Your task to perform on an android device: Show me popular games on the Play Store Image 0: 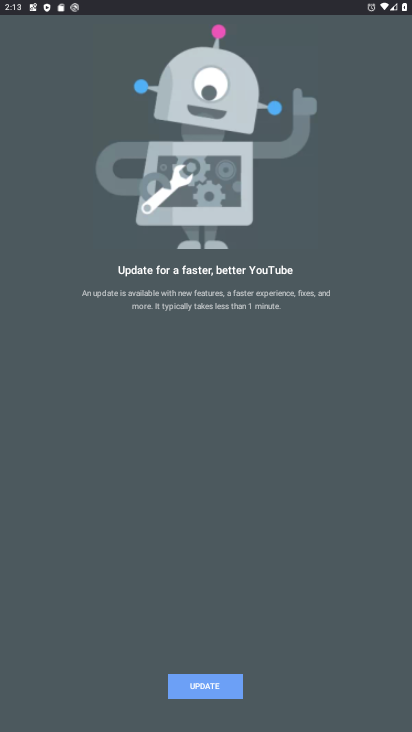
Step 0: click (186, 694)
Your task to perform on an android device: Show me popular games on the Play Store Image 1: 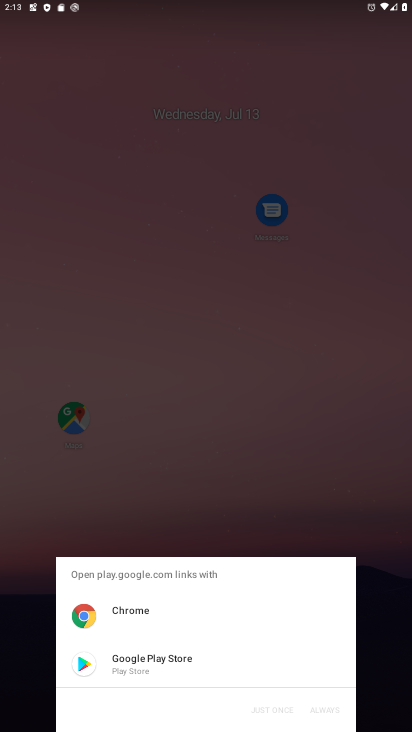
Step 1: press home button
Your task to perform on an android device: Show me popular games on the Play Store Image 2: 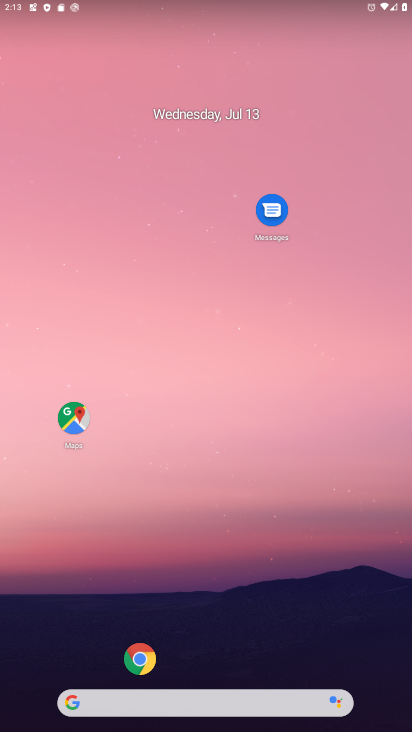
Step 2: drag from (132, 452) to (226, 217)
Your task to perform on an android device: Show me popular games on the Play Store Image 3: 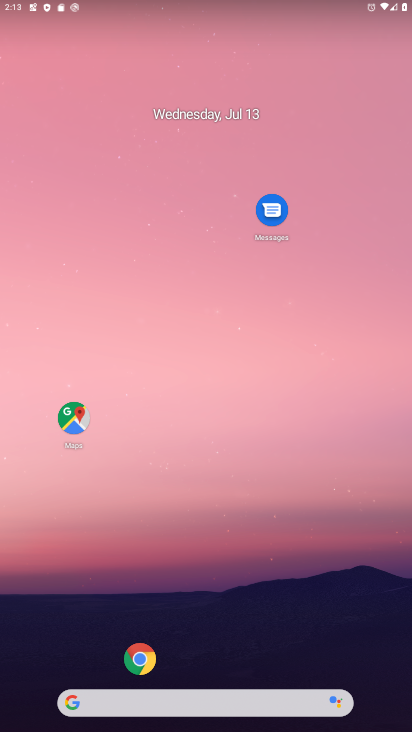
Step 3: drag from (21, 683) to (234, 242)
Your task to perform on an android device: Show me popular games on the Play Store Image 4: 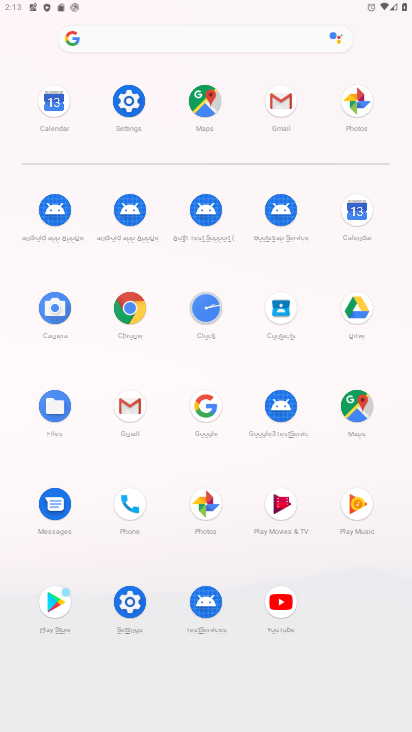
Step 4: click (131, 519)
Your task to perform on an android device: Show me popular games on the Play Store Image 5: 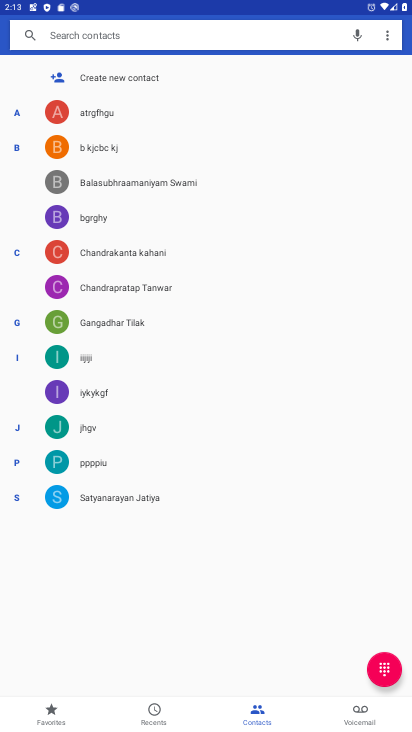
Step 5: press home button
Your task to perform on an android device: Show me popular games on the Play Store Image 6: 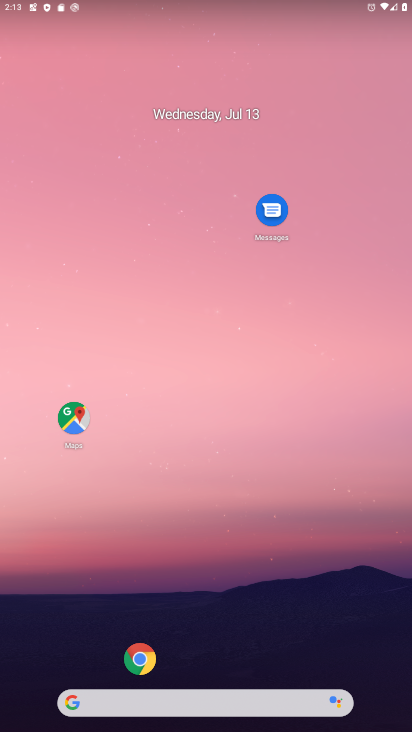
Step 6: drag from (13, 675) to (358, 0)
Your task to perform on an android device: Show me popular games on the Play Store Image 7: 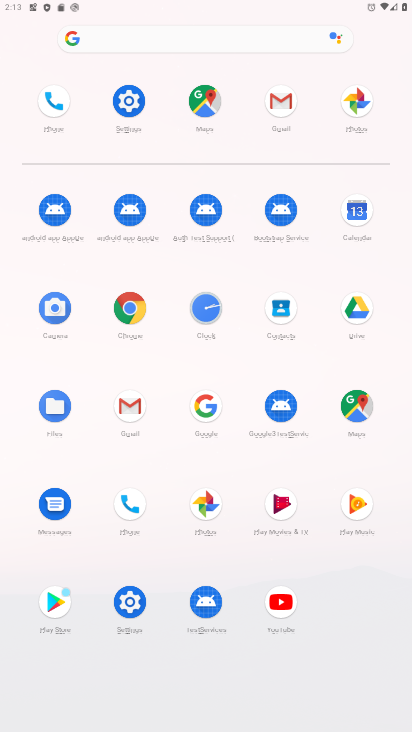
Step 7: click (62, 592)
Your task to perform on an android device: Show me popular games on the Play Store Image 8: 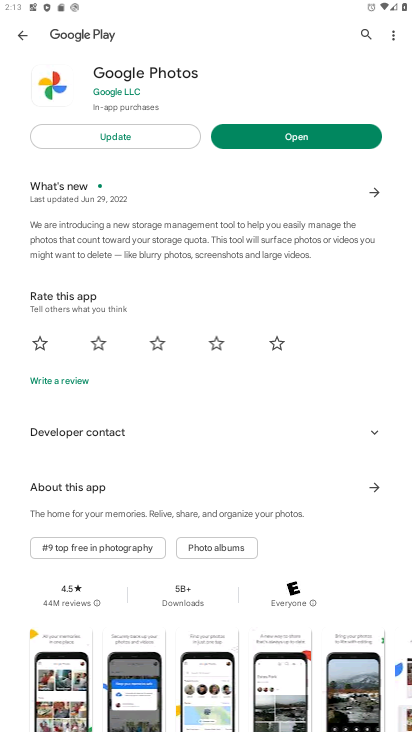
Step 8: click (27, 28)
Your task to perform on an android device: Show me popular games on the Play Store Image 9: 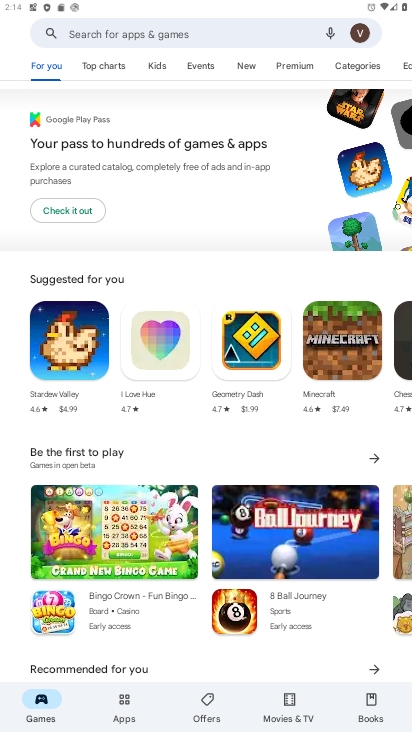
Step 9: click (89, 34)
Your task to perform on an android device: Show me popular games on the Play Store Image 10: 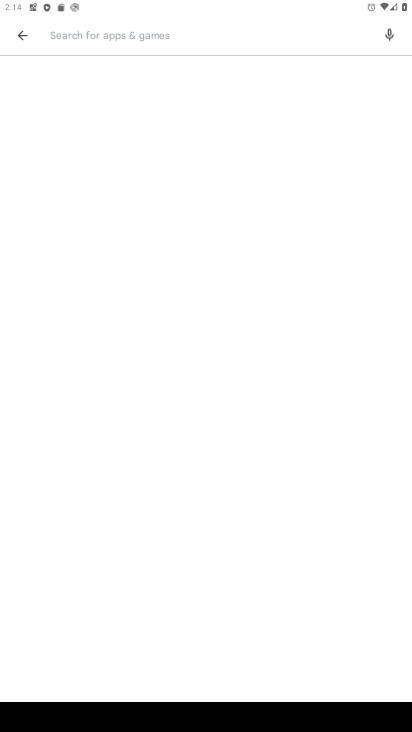
Step 10: type "popular games"
Your task to perform on an android device: Show me popular games on the Play Store Image 11: 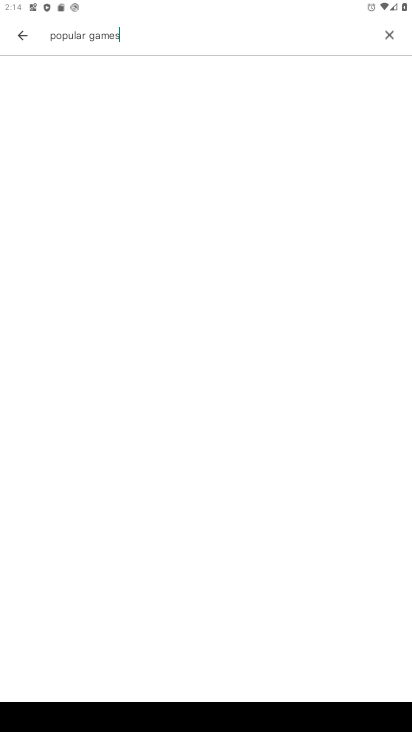
Step 11: type ""
Your task to perform on an android device: Show me popular games on the Play Store Image 12: 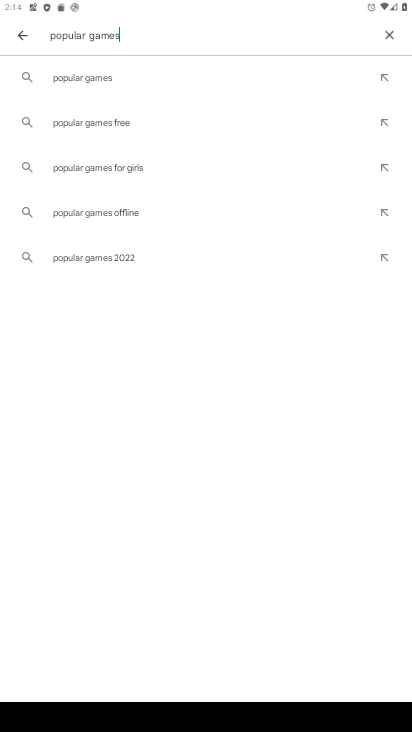
Step 12: click (85, 83)
Your task to perform on an android device: Show me popular games on the Play Store Image 13: 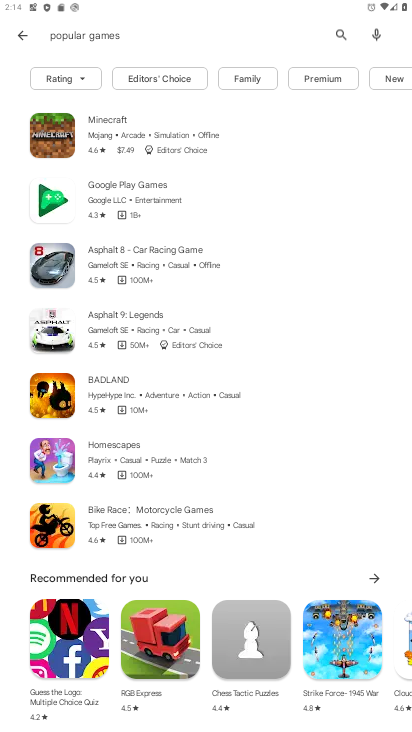
Step 13: task complete